Your task to perform on an android device: open device folders in google photos Image 0: 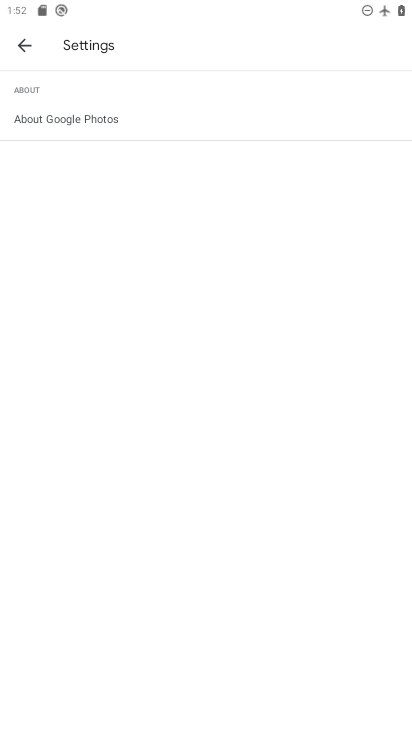
Step 0: press home button
Your task to perform on an android device: open device folders in google photos Image 1: 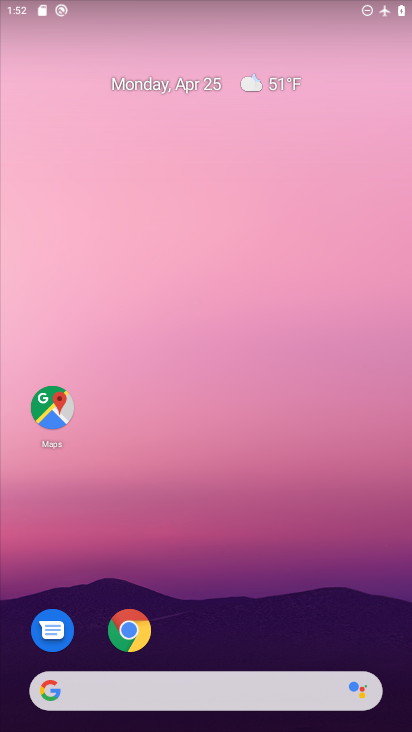
Step 1: drag from (289, 558) to (250, 84)
Your task to perform on an android device: open device folders in google photos Image 2: 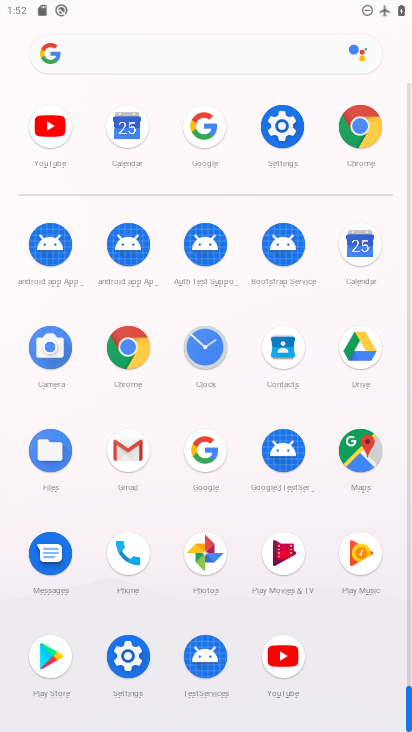
Step 2: drag from (408, 552) to (410, 236)
Your task to perform on an android device: open device folders in google photos Image 3: 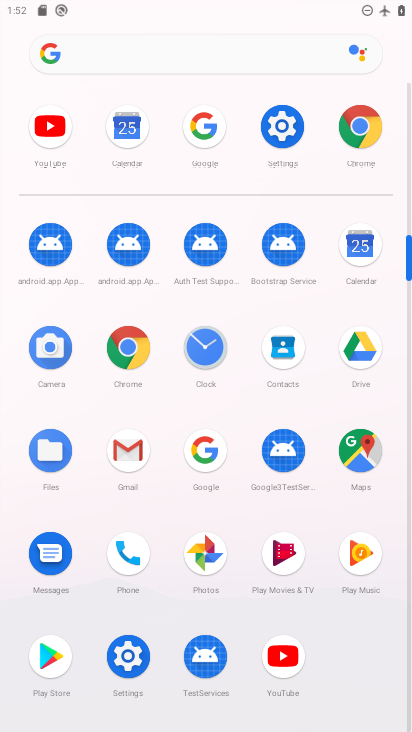
Step 3: click (211, 551)
Your task to perform on an android device: open device folders in google photos Image 4: 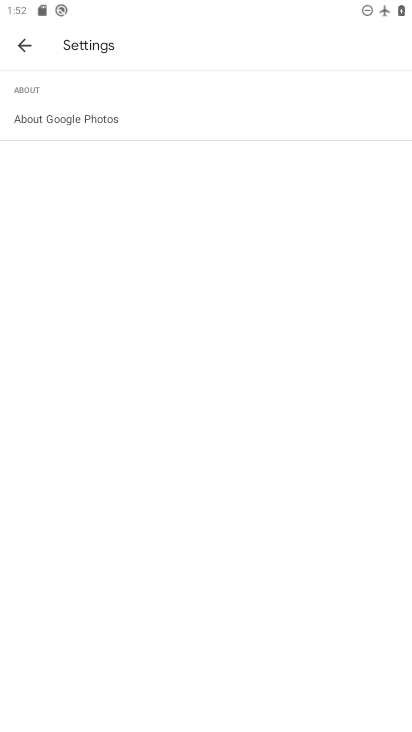
Step 4: click (18, 51)
Your task to perform on an android device: open device folders in google photos Image 5: 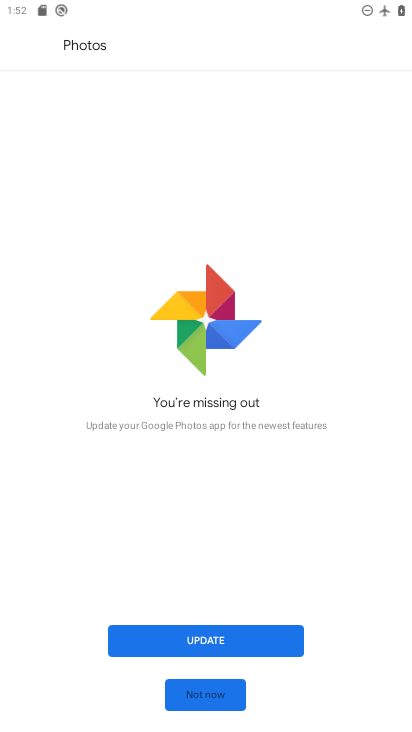
Step 5: click (227, 637)
Your task to perform on an android device: open device folders in google photos Image 6: 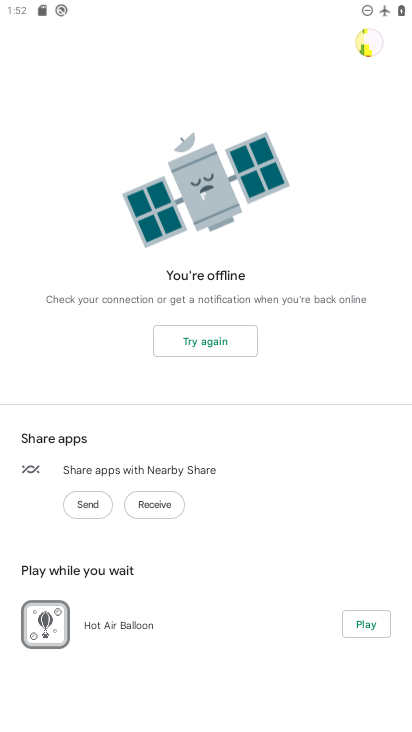
Step 6: click (180, 343)
Your task to perform on an android device: open device folders in google photos Image 7: 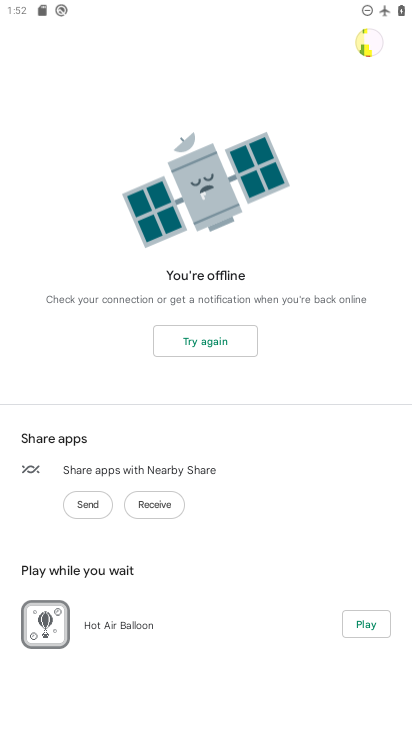
Step 7: click (180, 343)
Your task to perform on an android device: open device folders in google photos Image 8: 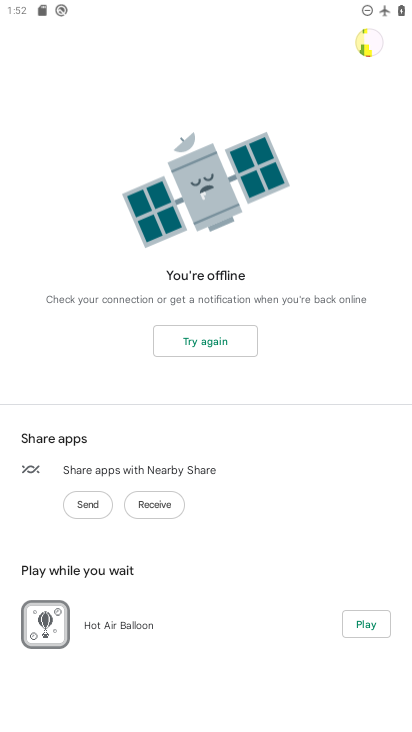
Step 8: task complete